Your task to perform on an android device: manage bookmarks in the chrome app Image 0: 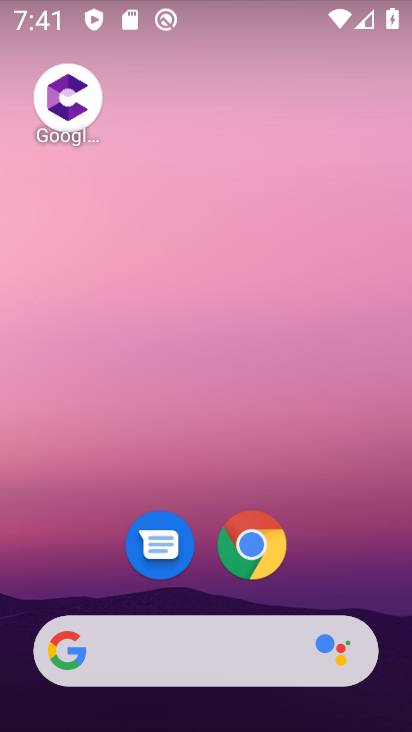
Step 0: drag from (324, 420) to (319, 95)
Your task to perform on an android device: manage bookmarks in the chrome app Image 1: 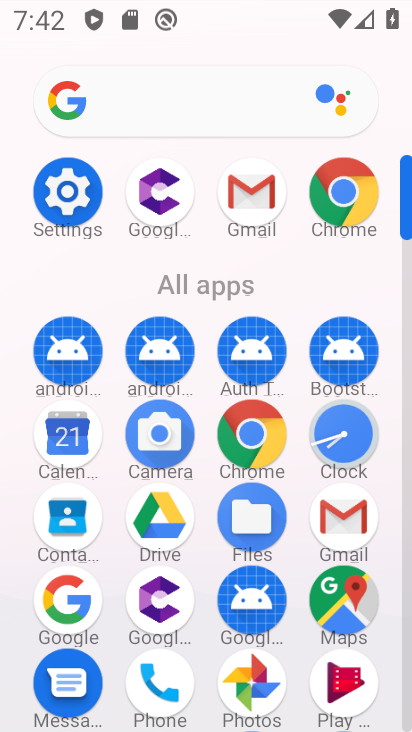
Step 1: click (338, 175)
Your task to perform on an android device: manage bookmarks in the chrome app Image 2: 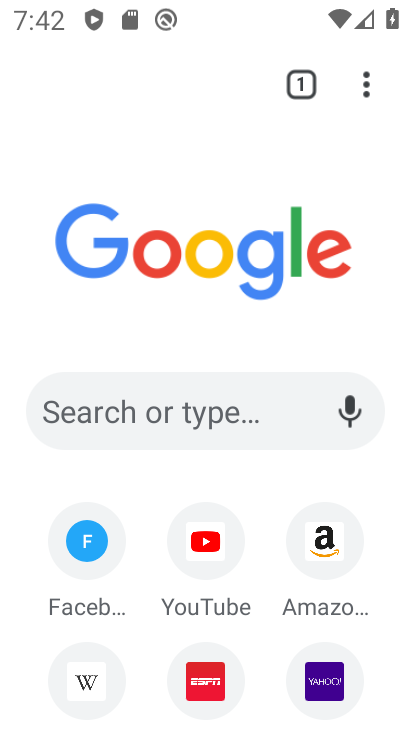
Step 2: click (347, 79)
Your task to perform on an android device: manage bookmarks in the chrome app Image 3: 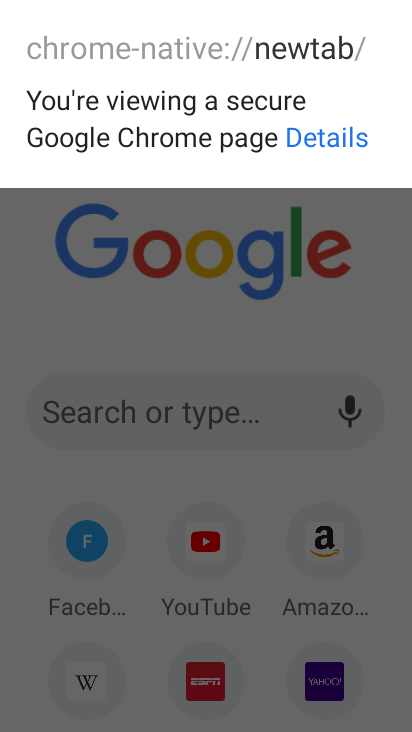
Step 3: press back button
Your task to perform on an android device: manage bookmarks in the chrome app Image 4: 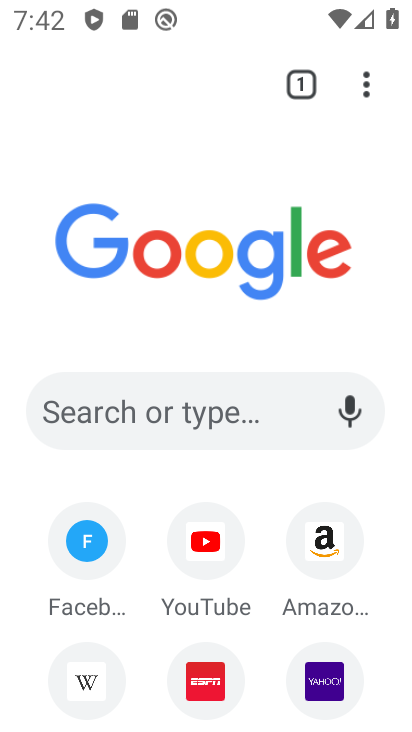
Step 4: click (341, 75)
Your task to perform on an android device: manage bookmarks in the chrome app Image 5: 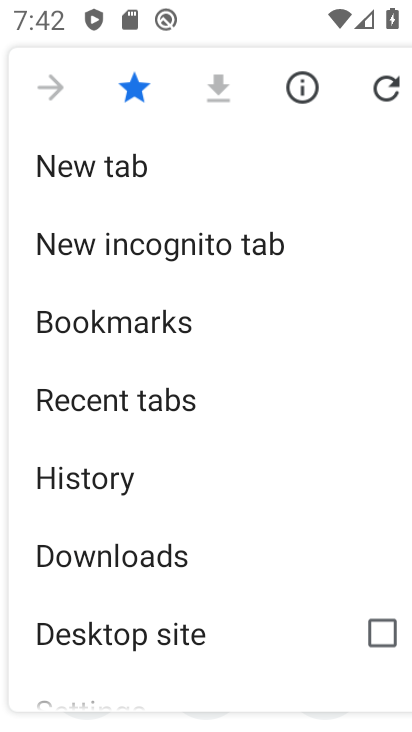
Step 5: click (133, 309)
Your task to perform on an android device: manage bookmarks in the chrome app Image 6: 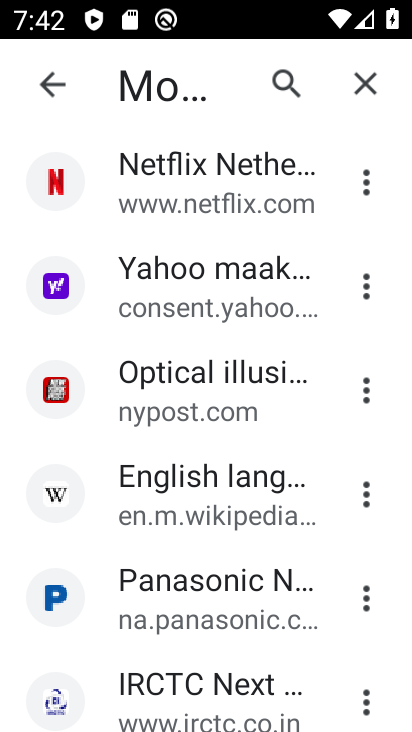
Step 6: click (143, 270)
Your task to perform on an android device: manage bookmarks in the chrome app Image 7: 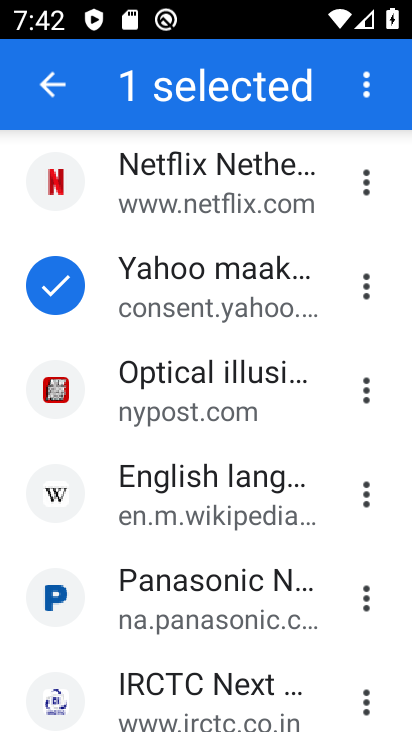
Step 7: click (16, 280)
Your task to perform on an android device: manage bookmarks in the chrome app Image 8: 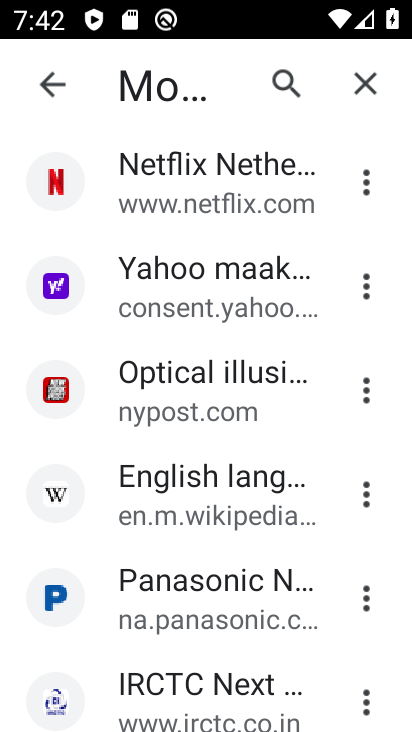
Step 8: click (347, 285)
Your task to perform on an android device: manage bookmarks in the chrome app Image 9: 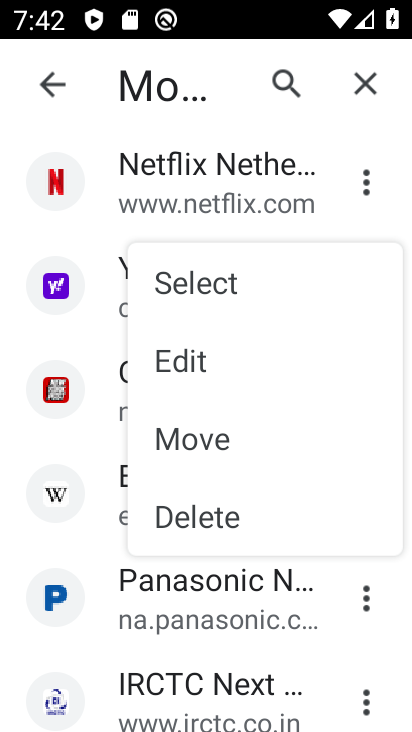
Step 9: press back button
Your task to perform on an android device: manage bookmarks in the chrome app Image 10: 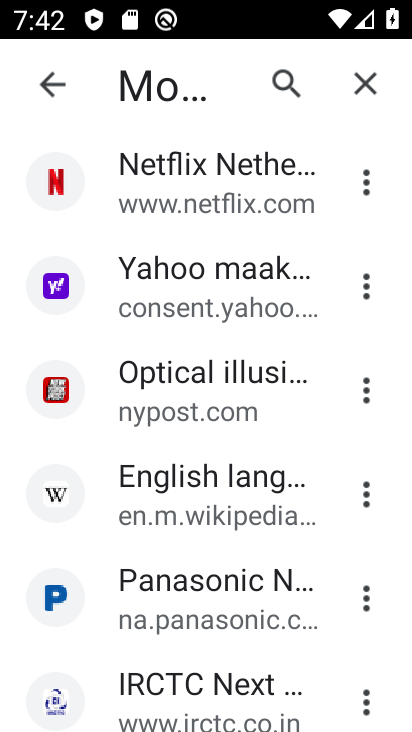
Step 10: click (52, 89)
Your task to perform on an android device: manage bookmarks in the chrome app Image 11: 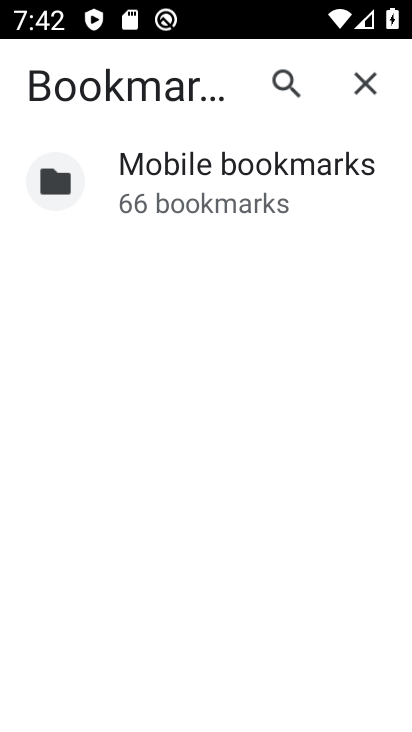
Step 11: press back button
Your task to perform on an android device: manage bookmarks in the chrome app Image 12: 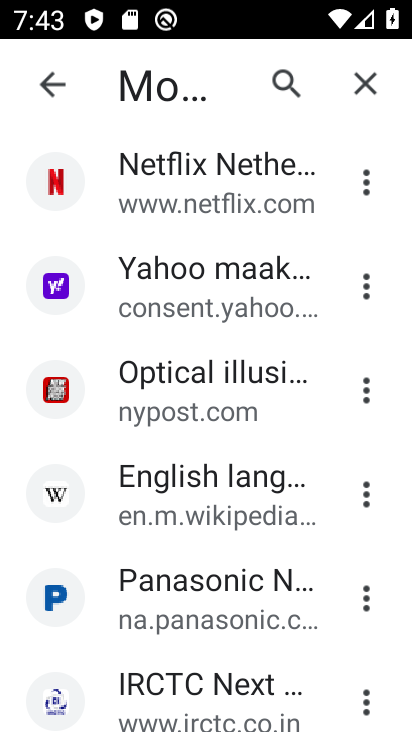
Step 12: click (54, 76)
Your task to perform on an android device: manage bookmarks in the chrome app Image 13: 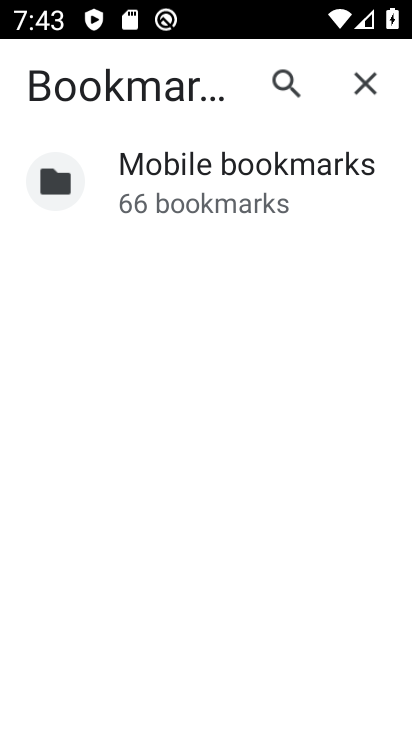
Step 13: click (54, 76)
Your task to perform on an android device: manage bookmarks in the chrome app Image 14: 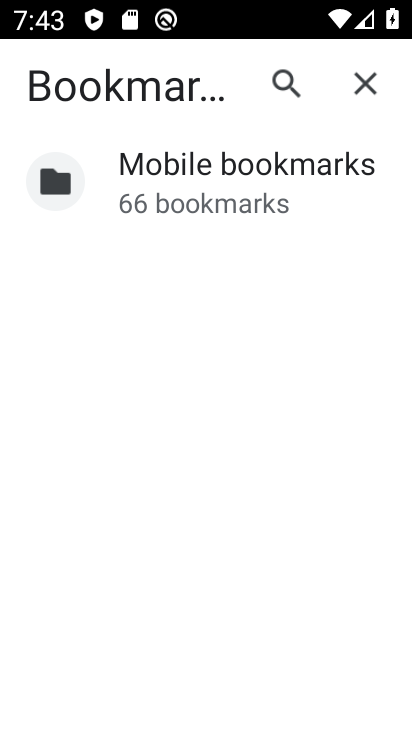
Step 14: click (358, 75)
Your task to perform on an android device: manage bookmarks in the chrome app Image 15: 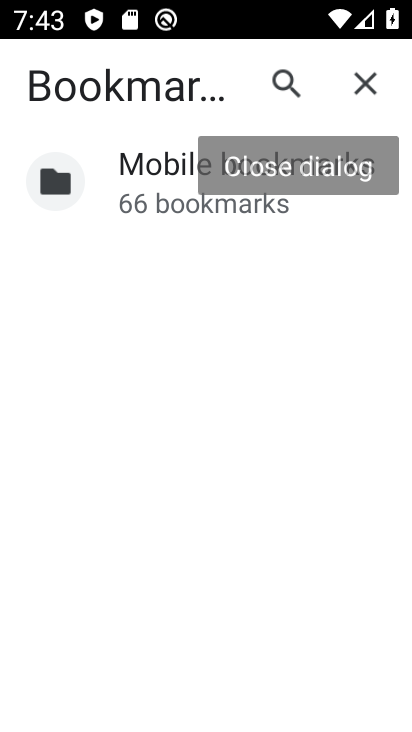
Step 15: press back button
Your task to perform on an android device: manage bookmarks in the chrome app Image 16: 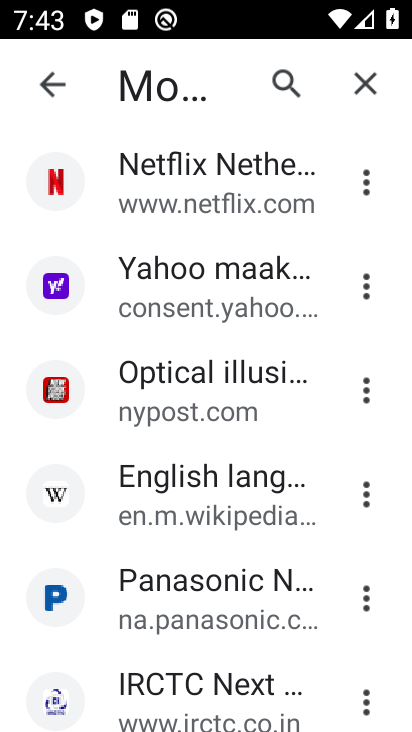
Step 16: press back button
Your task to perform on an android device: manage bookmarks in the chrome app Image 17: 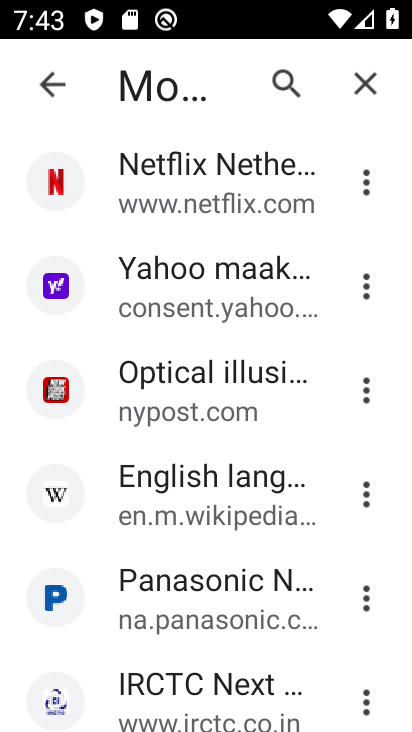
Step 17: press back button
Your task to perform on an android device: manage bookmarks in the chrome app Image 18: 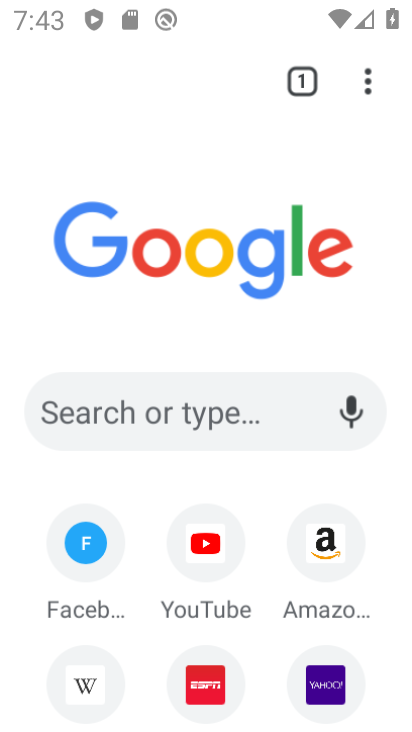
Step 18: press back button
Your task to perform on an android device: manage bookmarks in the chrome app Image 19: 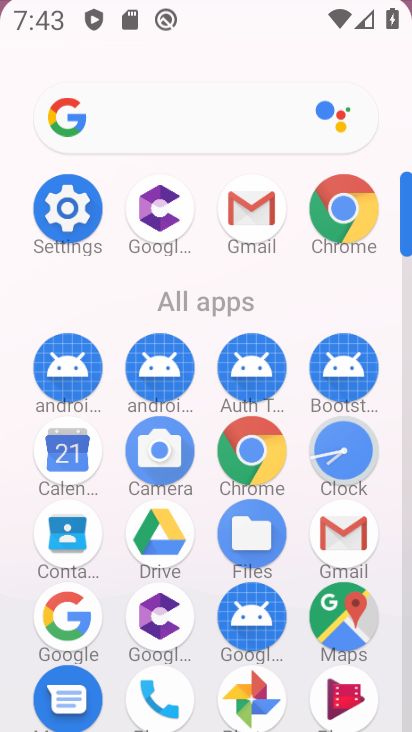
Step 19: press back button
Your task to perform on an android device: manage bookmarks in the chrome app Image 20: 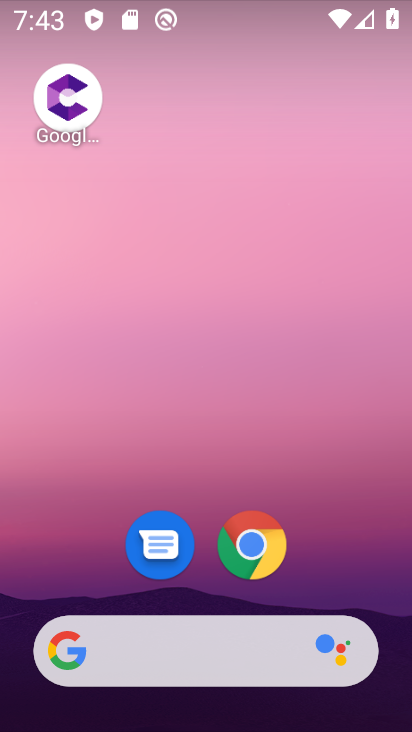
Step 20: click (243, 541)
Your task to perform on an android device: manage bookmarks in the chrome app Image 21: 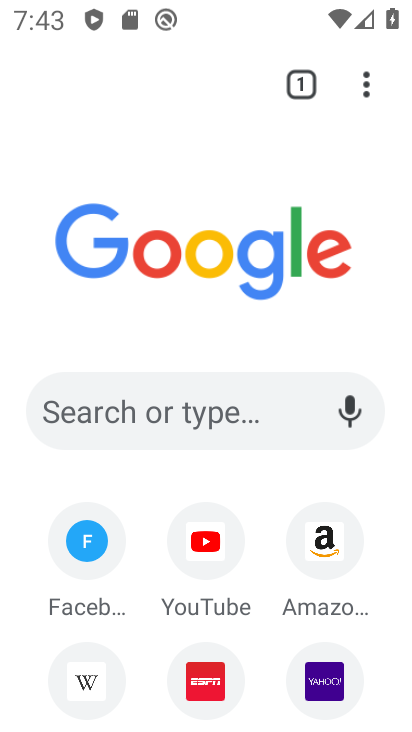
Step 21: click (348, 78)
Your task to perform on an android device: manage bookmarks in the chrome app Image 22: 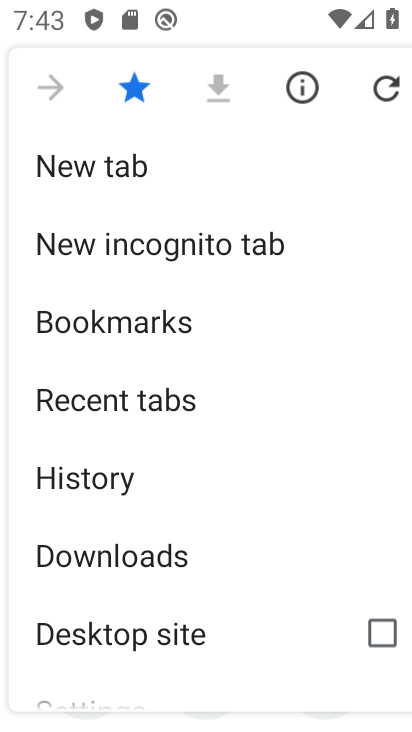
Step 22: click (202, 321)
Your task to perform on an android device: manage bookmarks in the chrome app Image 23: 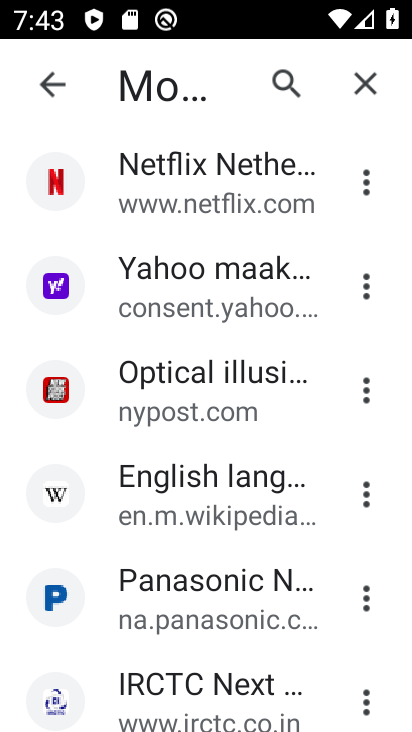
Step 23: click (199, 303)
Your task to perform on an android device: manage bookmarks in the chrome app Image 24: 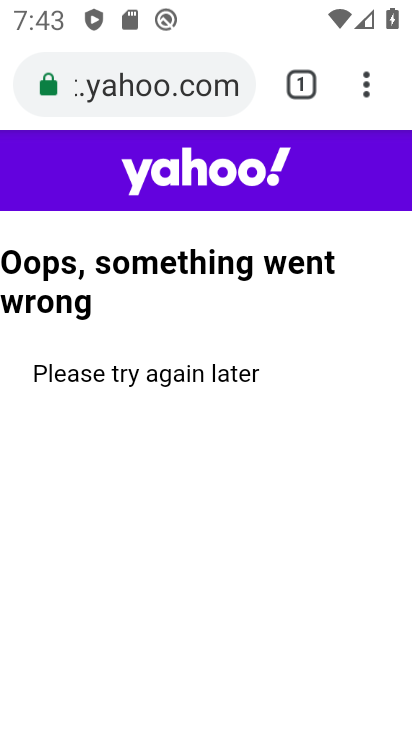
Step 24: click (349, 68)
Your task to perform on an android device: manage bookmarks in the chrome app Image 25: 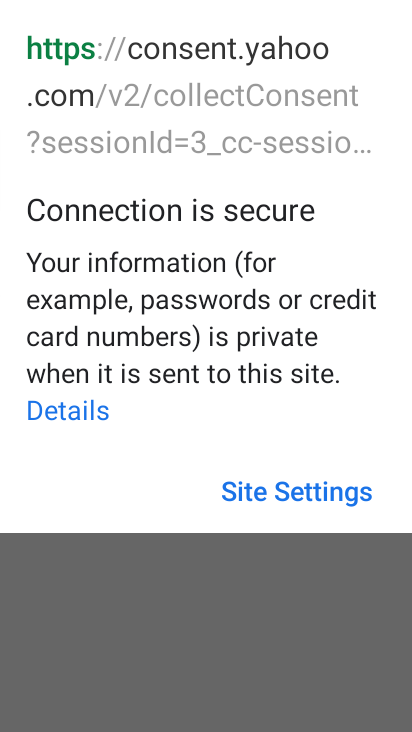
Step 25: press back button
Your task to perform on an android device: manage bookmarks in the chrome app Image 26: 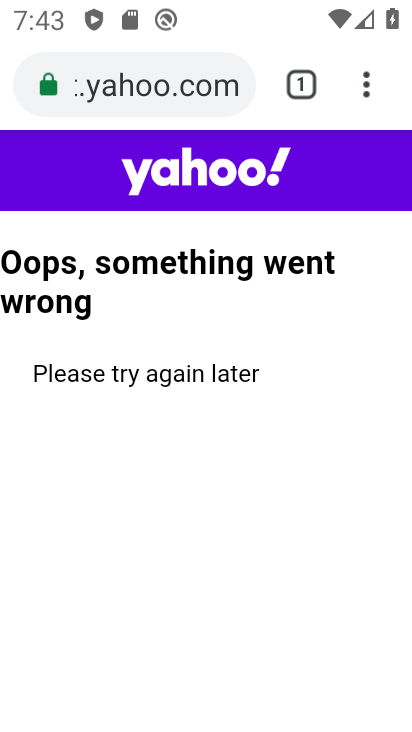
Step 26: click (341, 76)
Your task to perform on an android device: manage bookmarks in the chrome app Image 27: 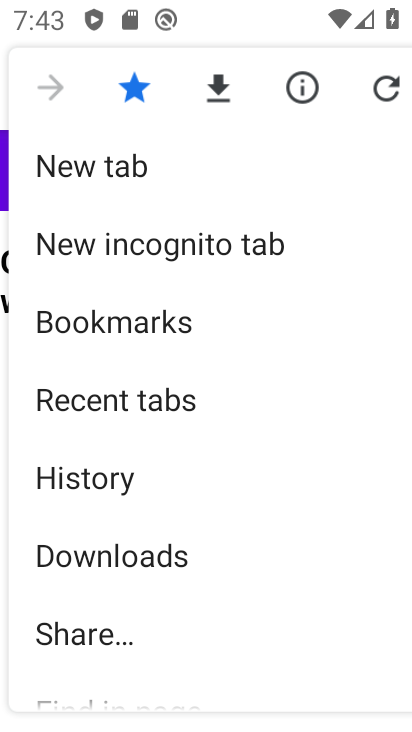
Step 27: click (132, 320)
Your task to perform on an android device: manage bookmarks in the chrome app Image 28: 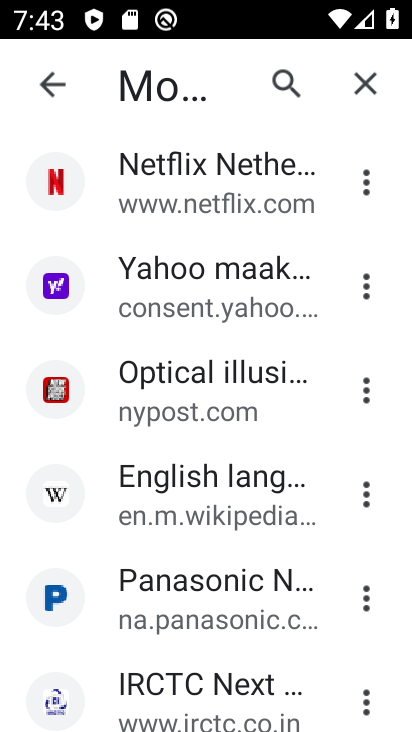
Step 28: click (34, 172)
Your task to perform on an android device: manage bookmarks in the chrome app Image 29: 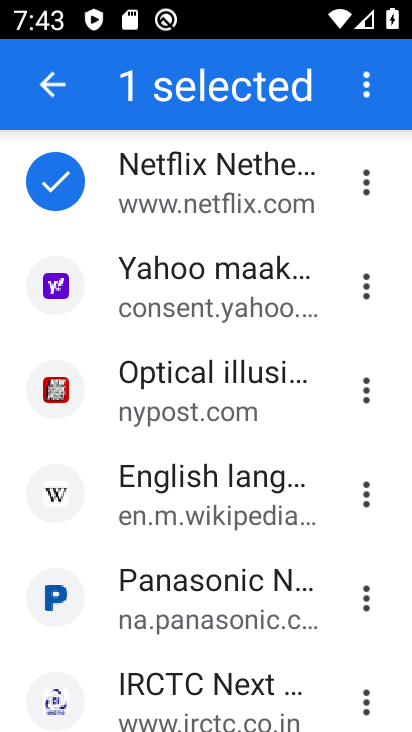
Step 29: click (359, 89)
Your task to perform on an android device: manage bookmarks in the chrome app Image 30: 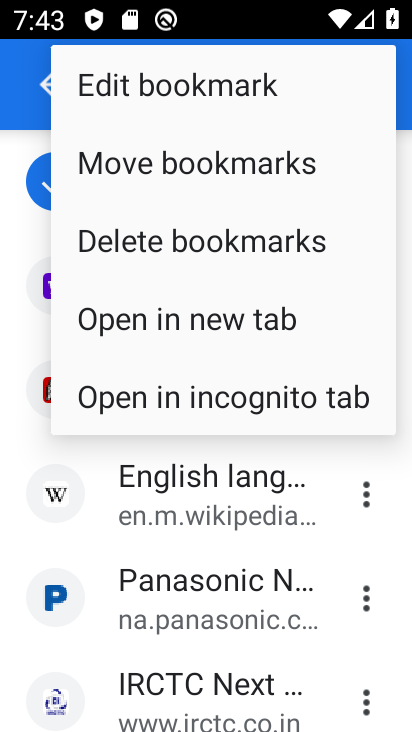
Step 30: click (169, 152)
Your task to perform on an android device: manage bookmarks in the chrome app Image 31: 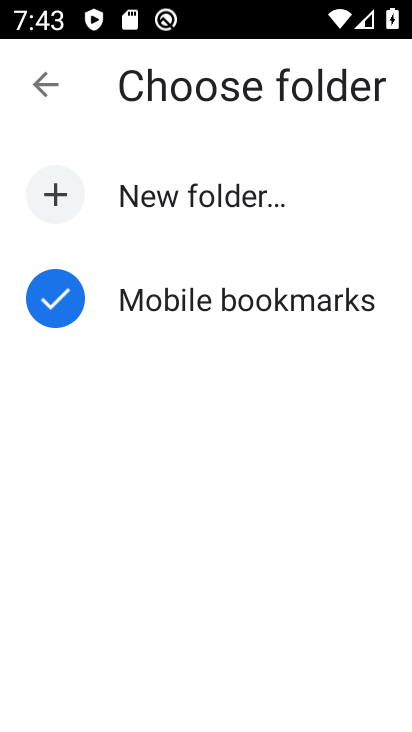
Step 31: click (219, 188)
Your task to perform on an android device: manage bookmarks in the chrome app Image 32: 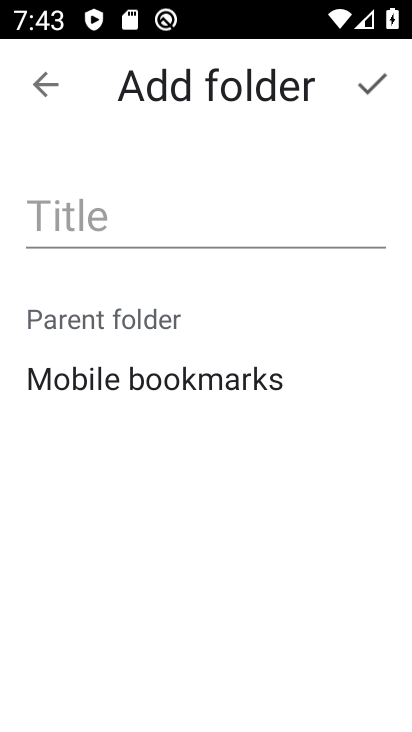
Step 32: click (192, 215)
Your task to perform on an android device: manage bookmarks in the chrome app Image 33: 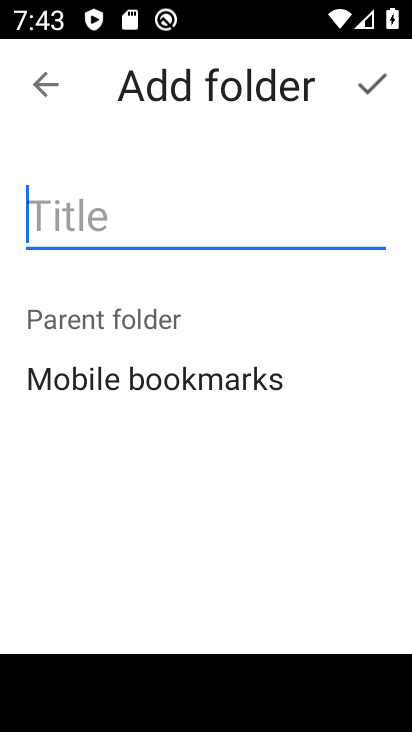
Step 33: type "ddddd"
Your task to perform on an android device: manage bookmarks in the chrome app Image 34: 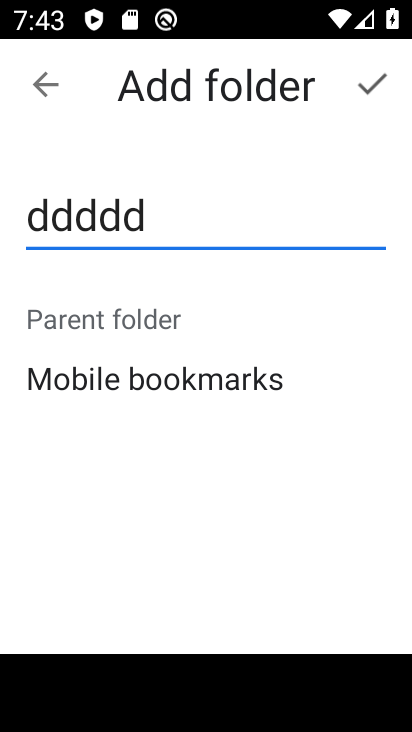
Step 34: click (373, 66)
Your task to perform on an android device: manage bookmarks in the chrome app Image 35: 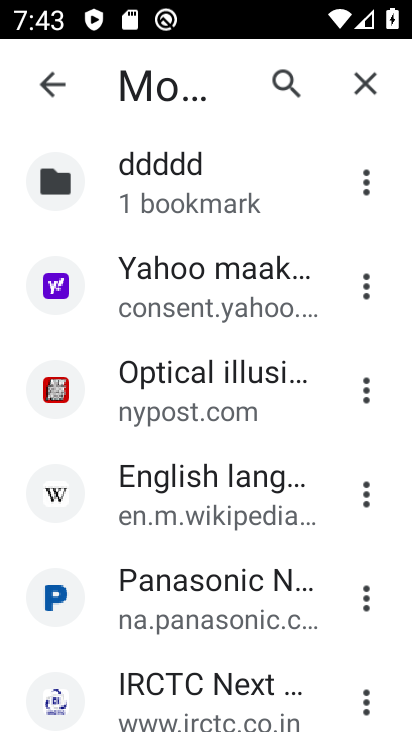
Step 35: click (201, 176)
Your task to perform on an android device: manage bookmarks in the chrome app Image 36: 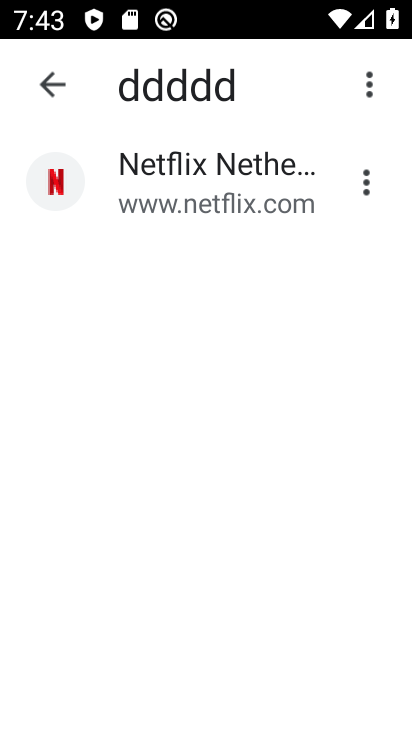
Step 36: task complete